Your task to perform on an android device: turn on the 12-hour format for clock Image 0: 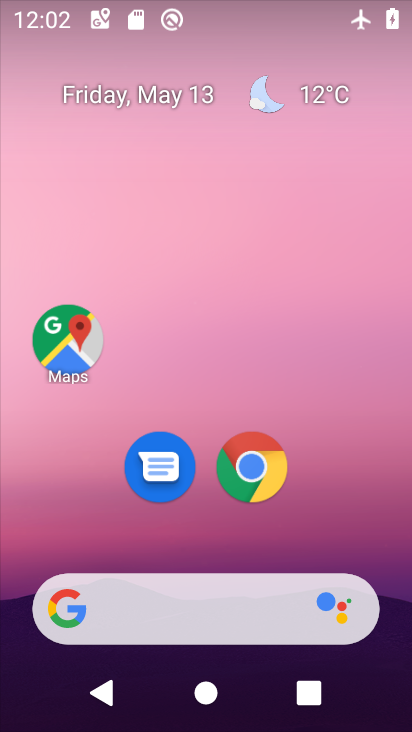
Step 0: press home button
Your task to perform on an android device: turn on the 12-hour format for clock Image 1: 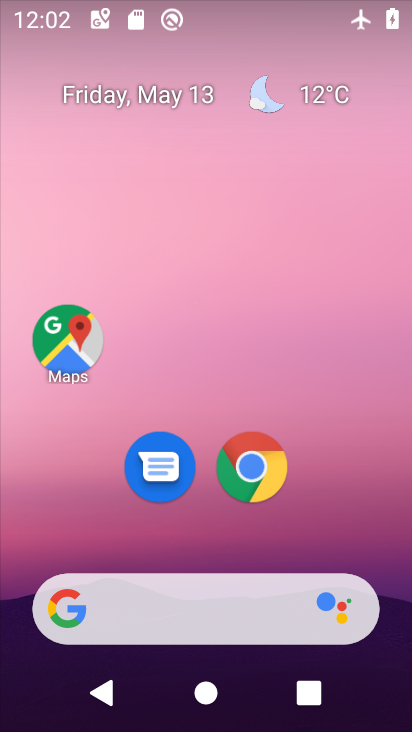
Step 1: drag from (263, 526) to (151, 42)
Your task to perform on an android device: turn on the 12-hour format for clock Image 2: 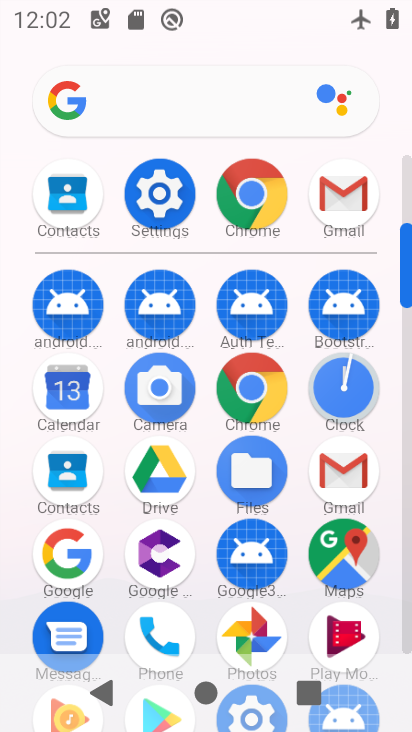
Step 2: click (345, 382)
Your task to perform on an android device: turn on the 12-hour format for clock Image 3: 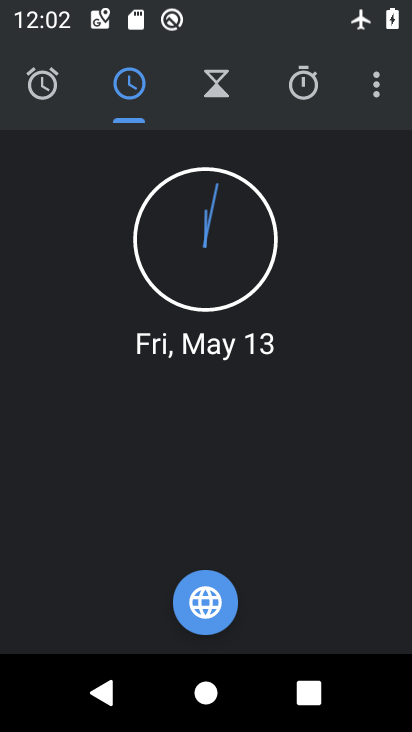
Step 3: click (368, 87)
Your task to perform on an android device: turn on the 12-hour format for clock Image 4: 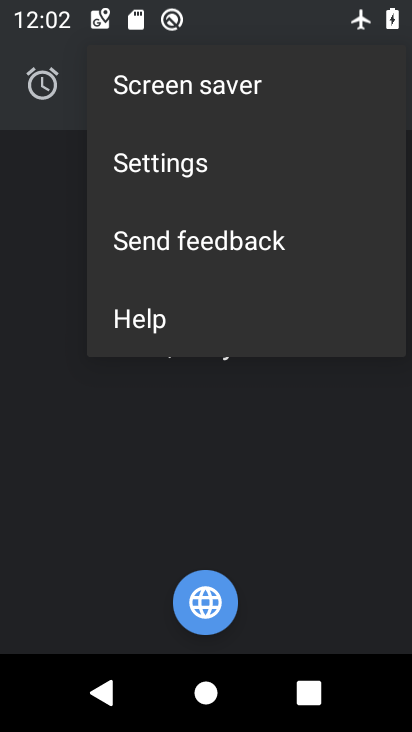
Step 4: click (276, 168)
Your task to perform on an android device: turn on the 12-hour format for clock Image 5: 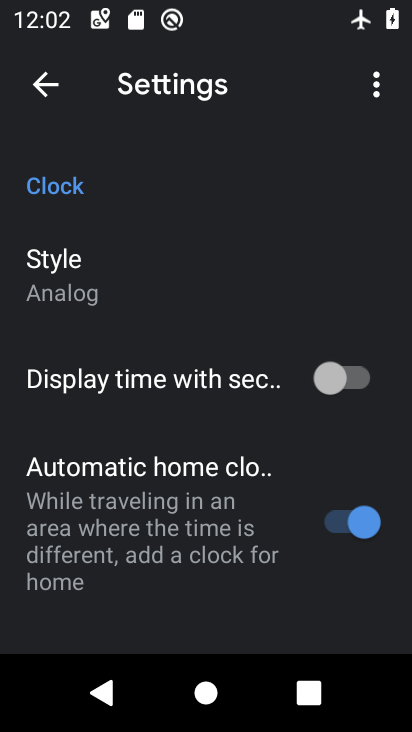
Step 5: drag from (158, 536) to (157, 229)
Your task to perform on an android device: turn on the 12-hour format for clock Image 6: 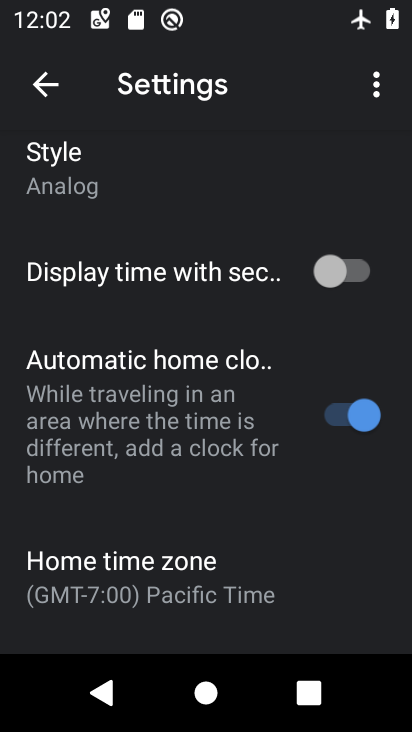
Step 6: drag from (141, 555) to (139, 239)
Your task to perform on an android device: turn on the 12-hour format for clock Image 7: 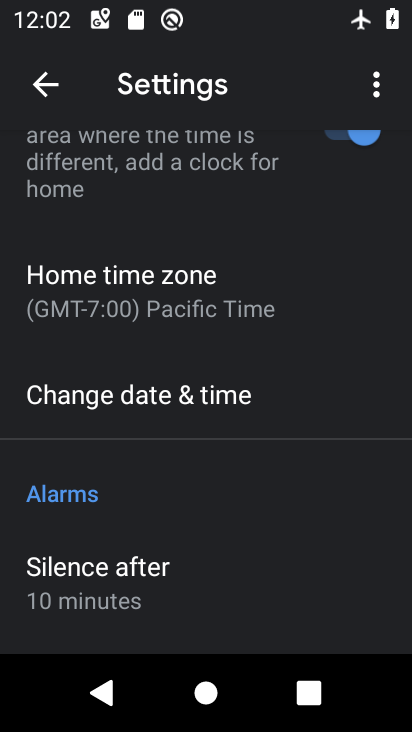
Step 7: click (133, 398)
Your task to perform on an android device: turn on the 12-hour format for clock Image 8: 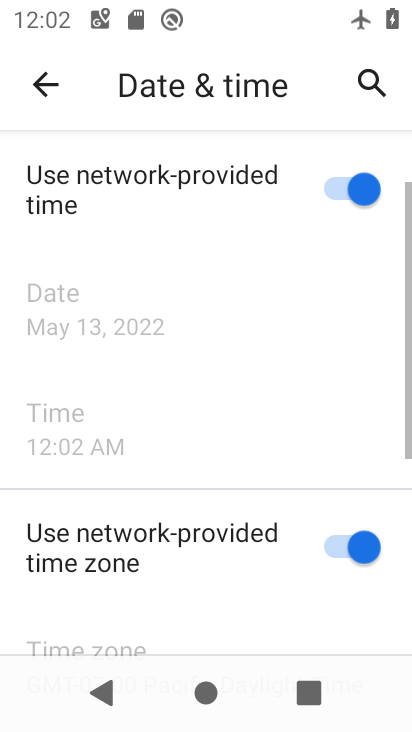
Step 8: task complete